Your task to perform on an android device: toggle notifications settings in the gmail app Image 0: 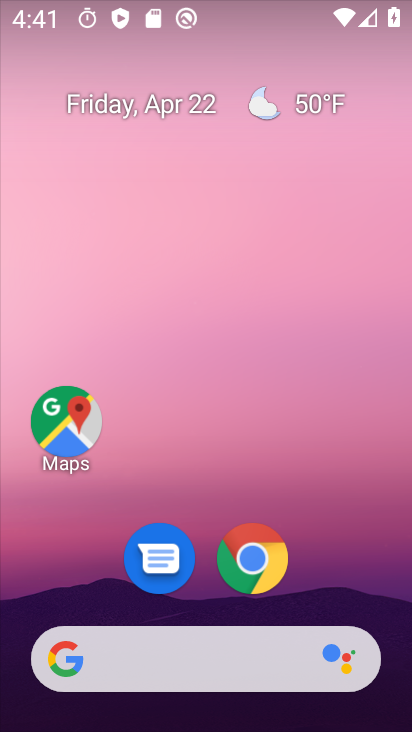
Step 0: drag from (339, 575) to (218, 220)
Your task to perform on an android device: toggle notifications settings in the gmail app Image 1: 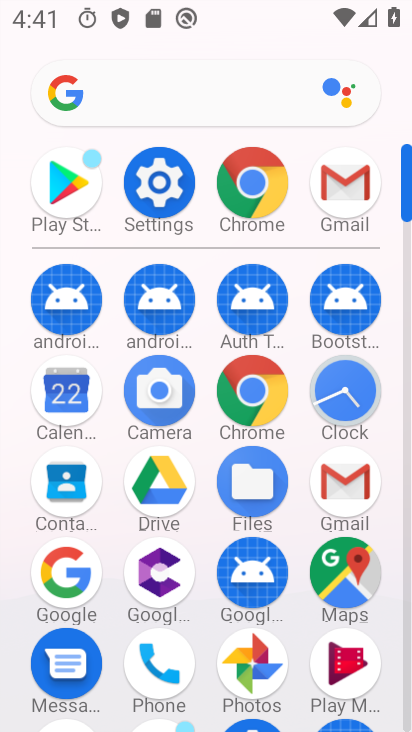
Step 1: click (169, 202)
Your task to perform on an android device: toggle notifications settings in the gmail app Image 2: 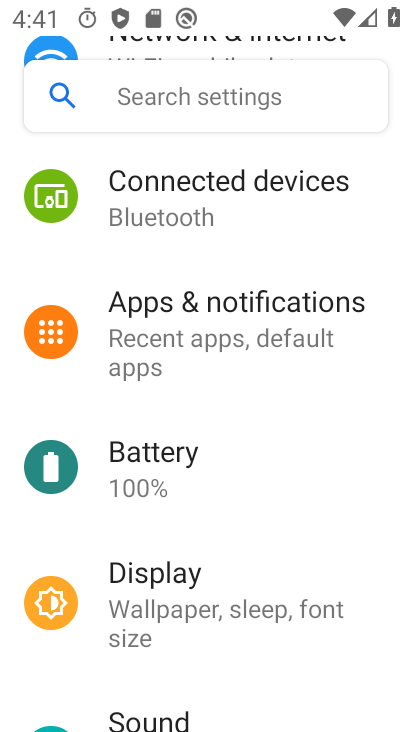
Step 2: drag from (293, 264) to (239, 547)
Your task to perform on an android device: toggle notifications settings in the gmail app Image 3: 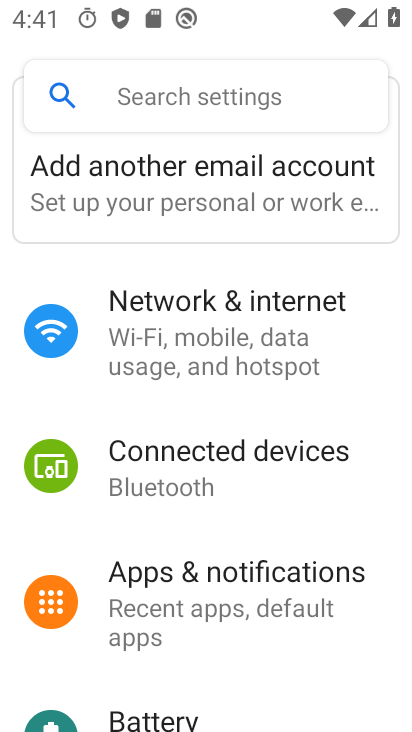
Step 3: drag from (255, 677) to (260, 319)
Your task to perform on an android device: toggle notifications settings in the gmail app Image 4: 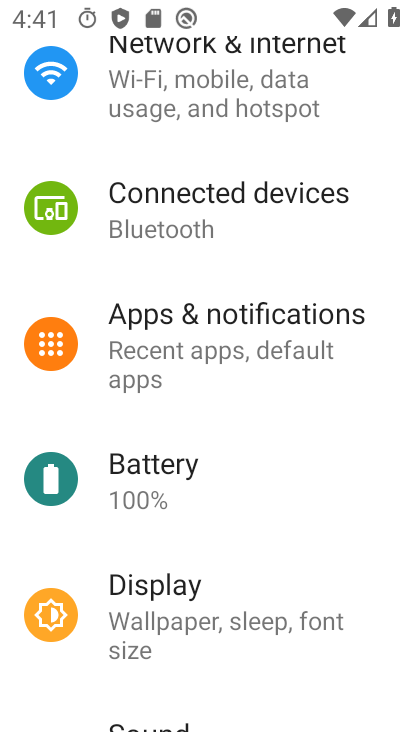
Step 4: press back button
Your task to perform on an android device: toggle notifications settings in the gmail app Image 5: 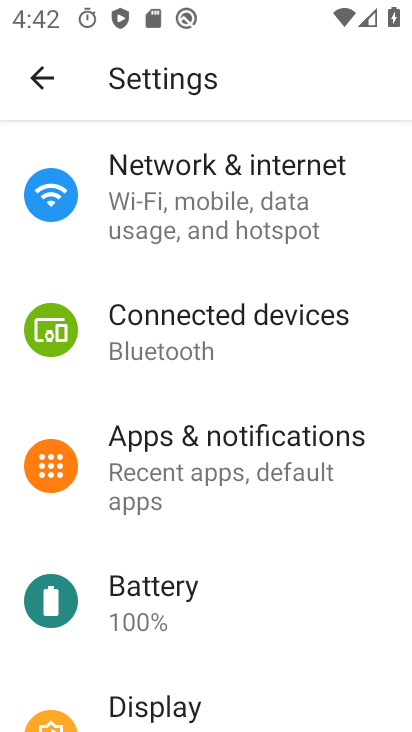
Step 5: press back button
Your task to perform on an android device: toggle notifications settings in the gmail app Image 6: 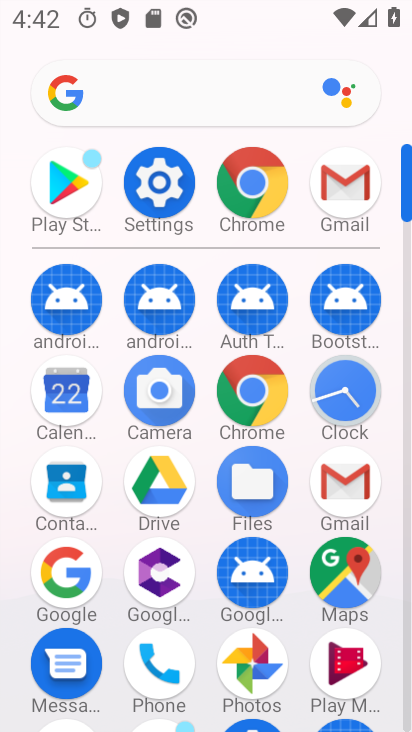
Step 6: click (338, 206)
Your task to perform on an android device: toggle notifications settings in the gmail app Image 7: 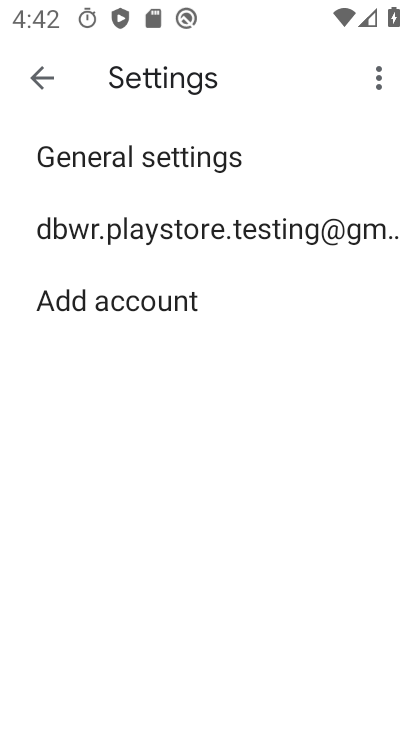
Step 7: click (273, 235)
Your task to perform on an android device: toggle notifications settings in the gmail app Image 8: 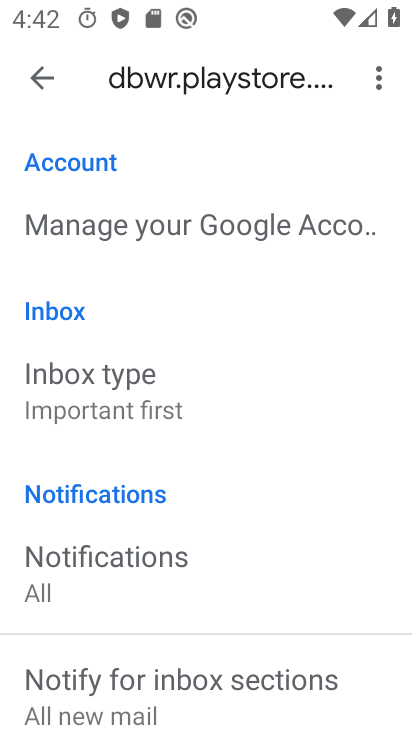
Step 8: drag from (207, 594) to (224, 250)
Your task to perform on an android device: toggle notifications settings in the gmail app Image 9: 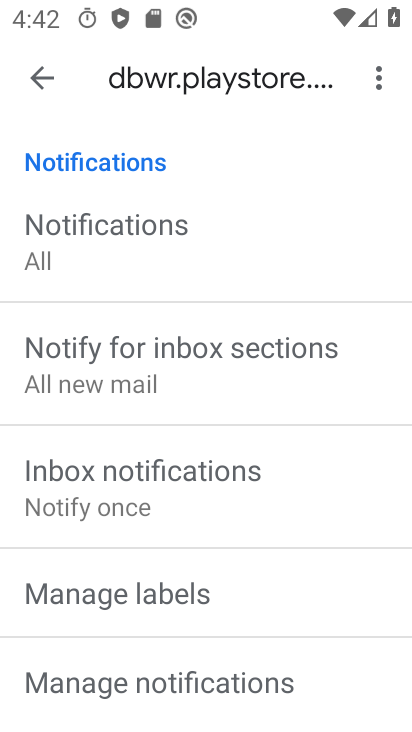
Step 9: drag from (237, 642) to (273, 272)
Your task to perform on an android device: toggle notifications settings in the gmail app Image 10: 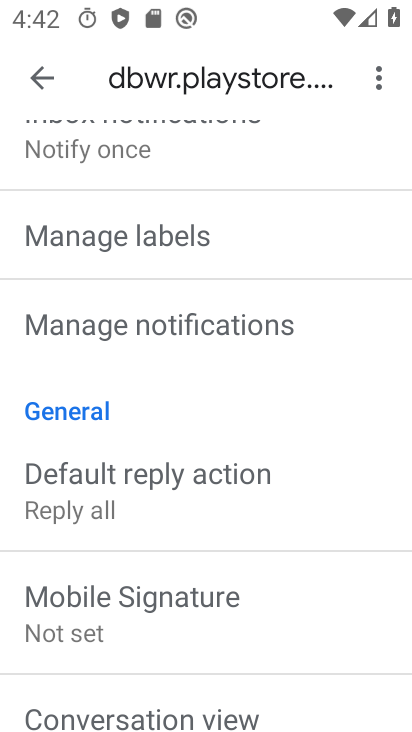
Step 10: drag from (250, 641) to (193, 279)
Your task to perform on an android device: toggle notifications settings in the gmail app Image 11: 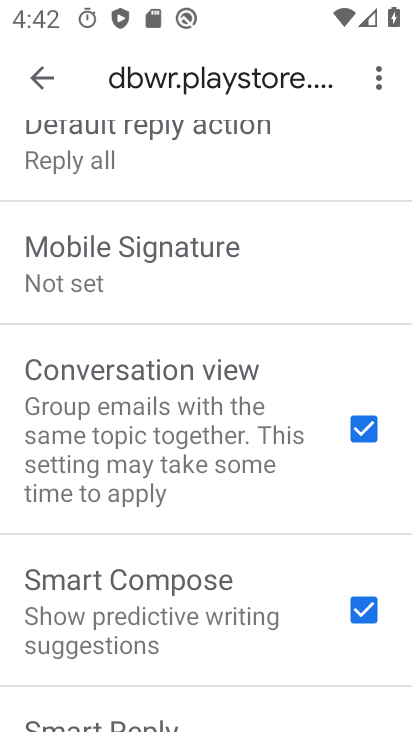
Step 11: drag from (282, 274) to (241, 582)
Your task to perform on an android device: toggle notifications settings in the gmail app Image 12: 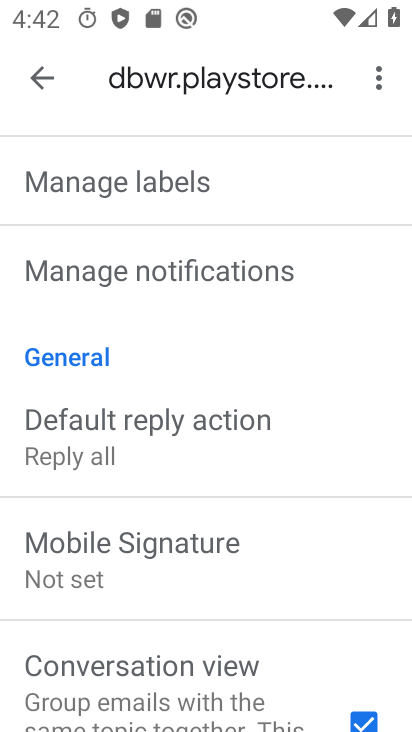
Step 12: drag from (288, 372) to (260, 670)
Your task to perform on an android device: toggle notifications settings in the gmail app Image 13: 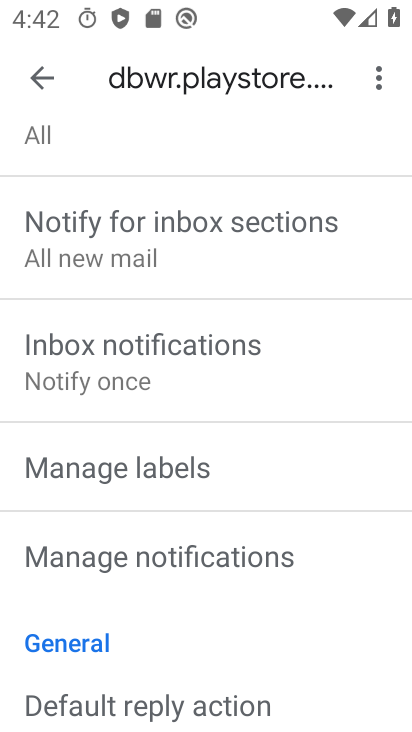
Step 13: drag from (313, 427) to (252, 699)
Your task to perform on an android device: toggle notifications settings in the gmail app Image 14: 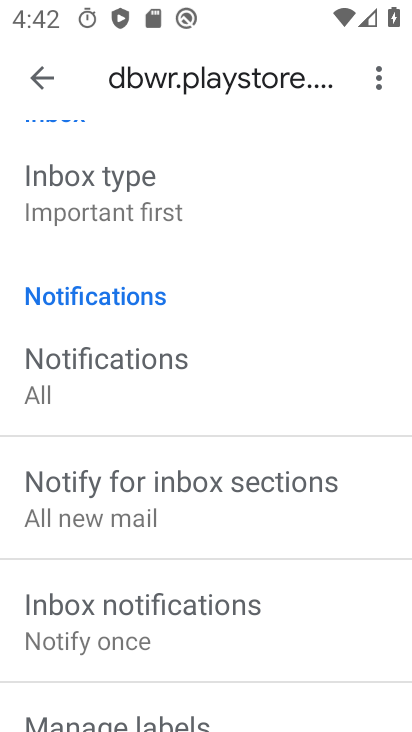
Step 14: drag from (286, 325) to (320, 682)
Your task to perform on an android device: toggle notifications settings in the gmail app Image 15: 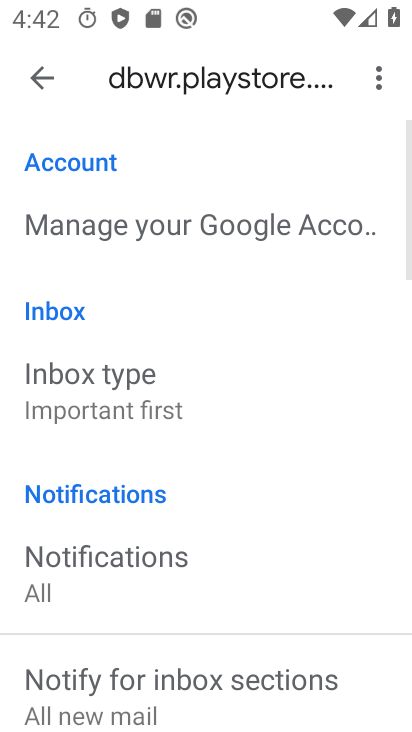
Step 15: drag from (309, 246) to (329, 535)
Your task to perform on an android device: toggle notifications settings in the gmail app Image 16: 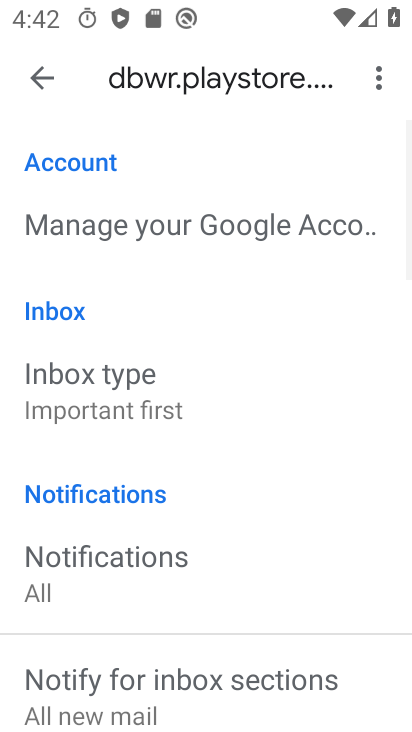
Step 16: drag from (288, 384) to (288, 706)
Your task to perform on an android device: toggle notifications settings in the gmail app Image 17: 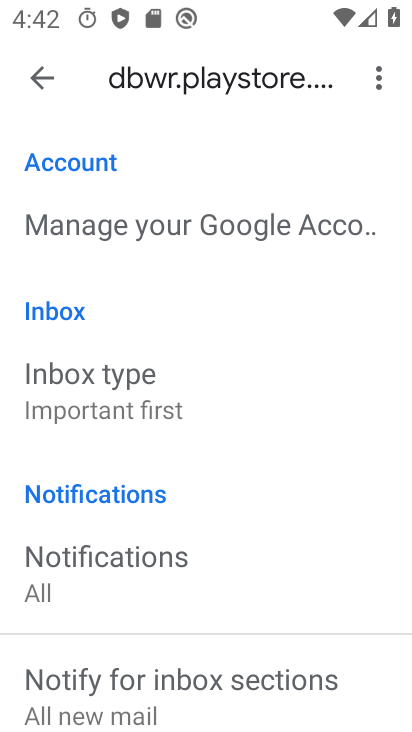
Step 17: click (78, 594)
Your task to perform on an android device: toggle notifications settings in the gmail app Image 18: 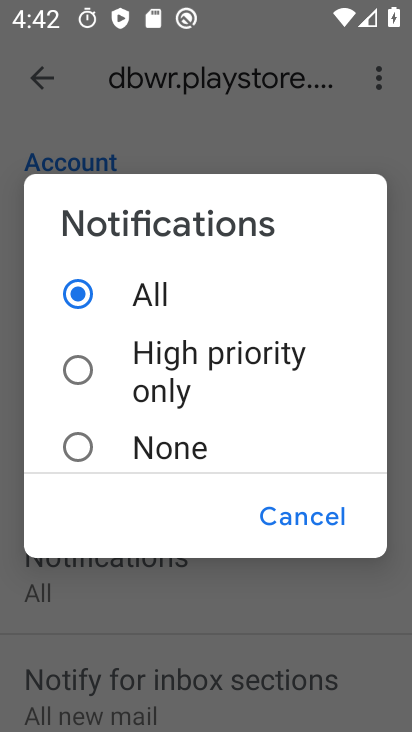
Step 18: click (65, 453)
Your task to perform on an android device: toggle notifications settings in the gmail app Image 19: 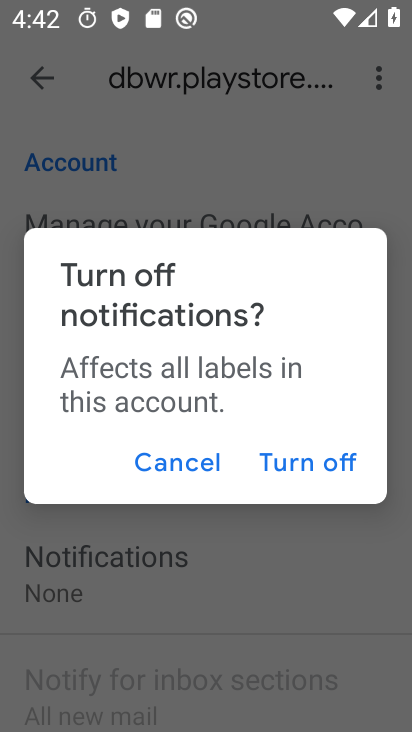
Step 19: click (307, 455)
Your task to perform on an android device: toggle notifications settings in the gmail app Image 20: 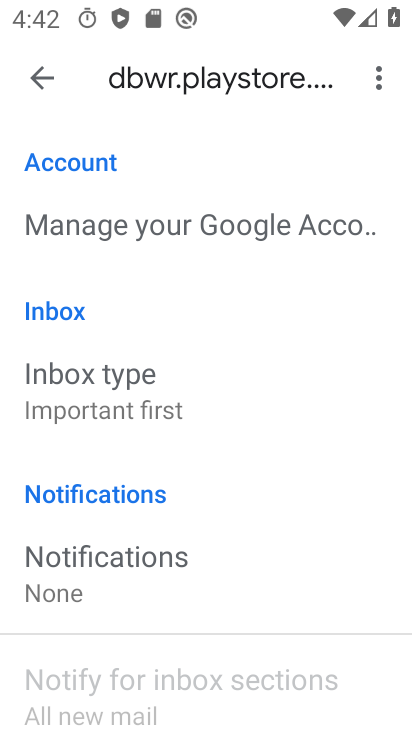
Step 20: task complete